Your task to perform on an android device: change alarm snooze length Image 0: 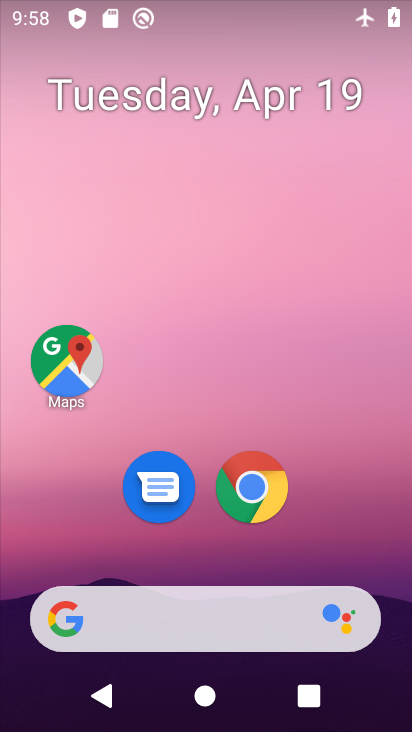
Step 0: drag from (323, 541) to (330, 0)
Your task to perform on an android device: change alarm snooze length Image 1: 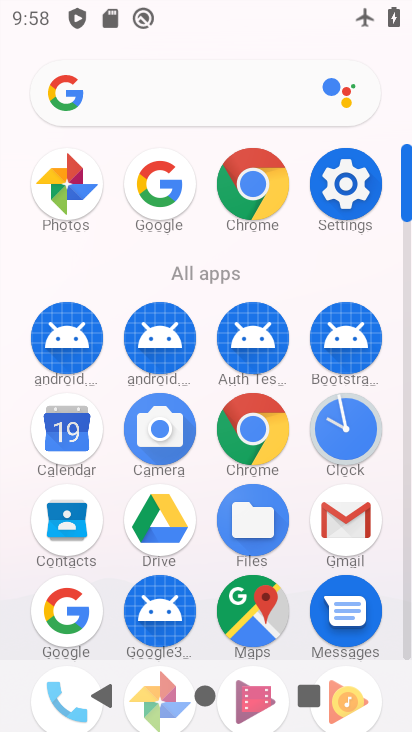
Step 1: click (341, 421)
Your task to perform on an android device: change alarm snooze length Image 2: 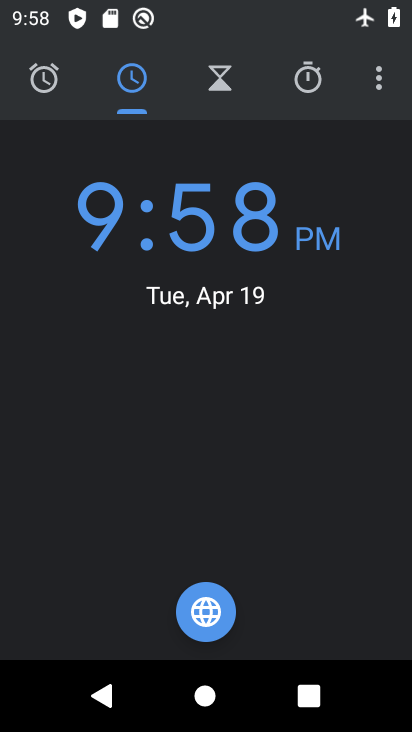
Step 2: click (383, 85)
Your task to perform on an android device: change alarm snooze length Image 3: 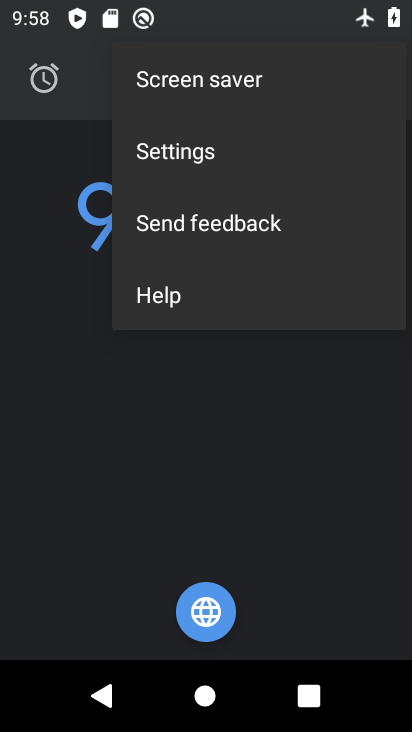
Step 3: click (174, 154)
Your task to perform on an android device: change alarm snooze length Image 4: 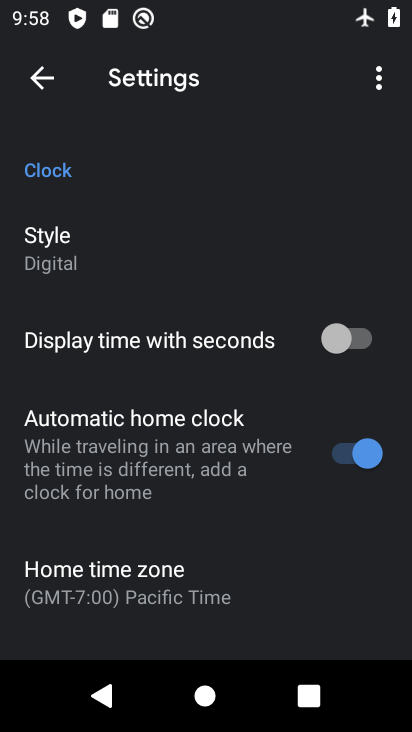
Step 4: drag from (150, 375) to (146, 303)
Your task to perform on an android device: change alarm snooze length Image 5: 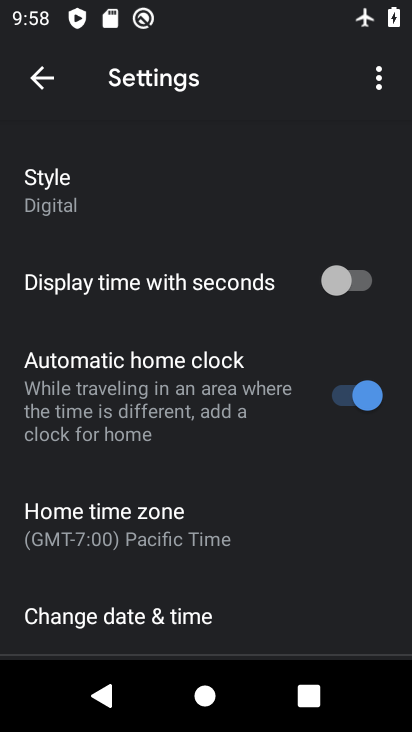
Step 5: drag from (99, 440) to (102, 358)
Your task to perform on an android device: change alarm snooze length Image 6: 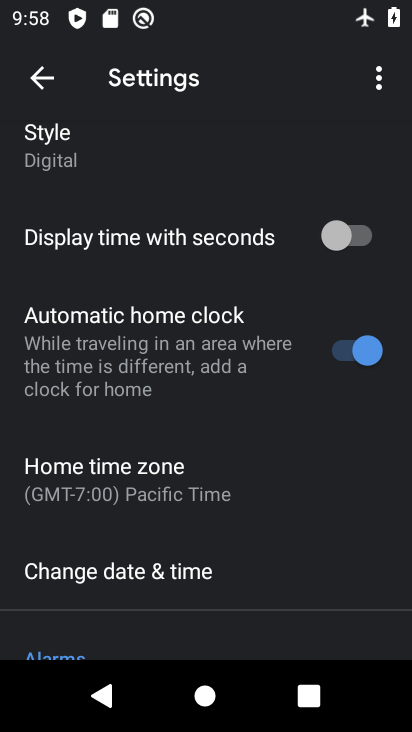
Step 6: drag from (96, 463) to (104, 367)
Your task to perform on an android device: change alarm snooze length Image 7: 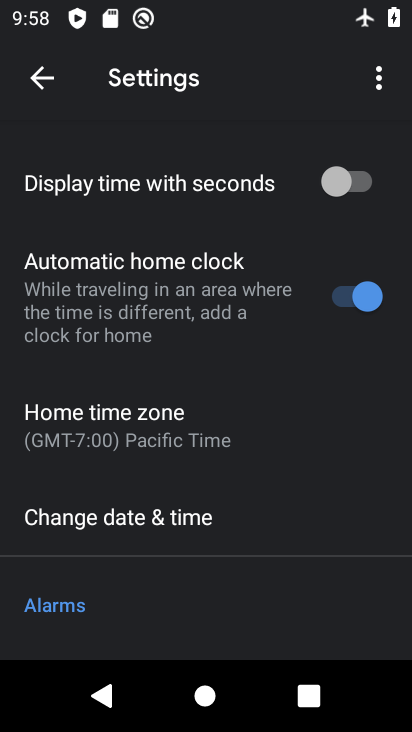
Step 7: drag from (57, 512) to (65, 440)
Your task to perform on an android device: change alarm snooze length Image 8: 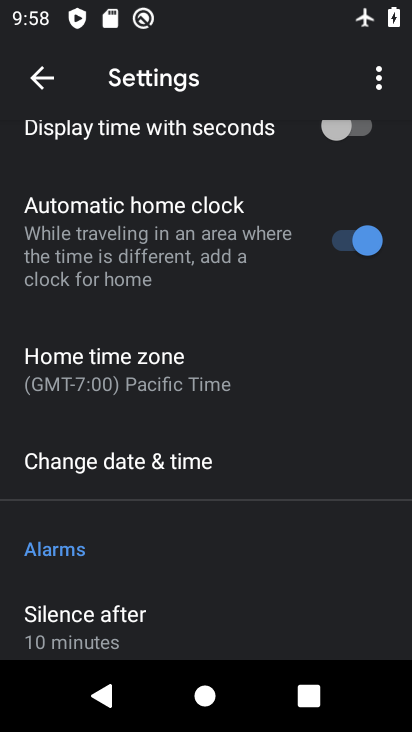
Step 8: drag from (60, 495) to (77, 413)
Your task to perform on an android device: change alarm snooze length Image 9: 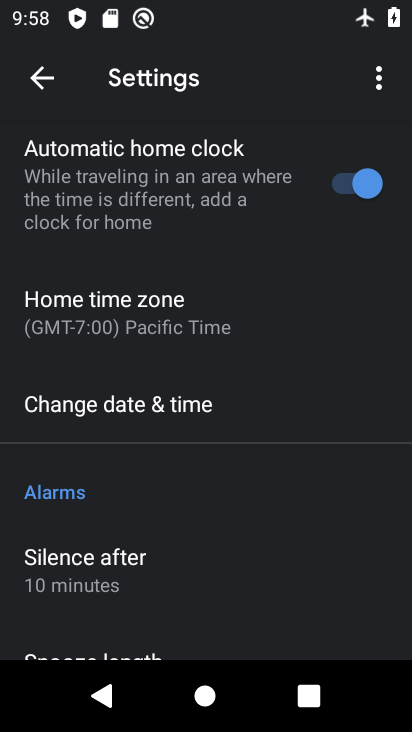
Step 9: drag from (77, 486) to (87, 431)
Your task to perform on an android device: change alarm snooze length Image 10: 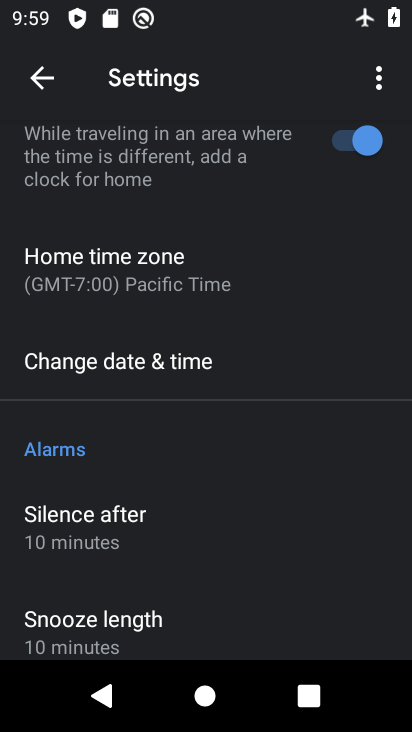
Step 10: click (91, 624)
Your task to perform on an android device: change alarm snooze length Image 11: 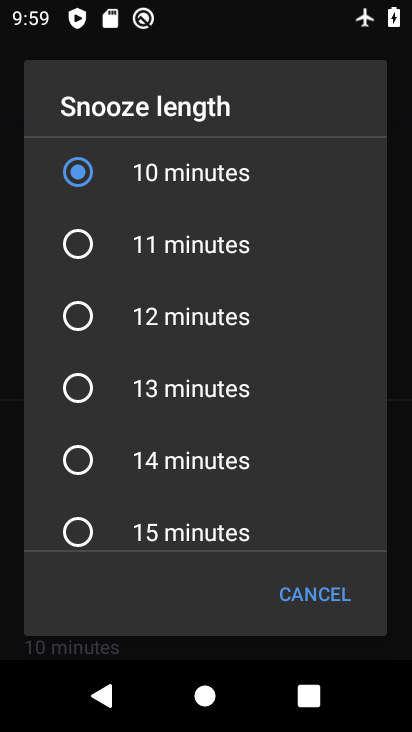
Step 11: click (176, 317)
Your task to perform on an android device: change alarm snooze length Image 12: 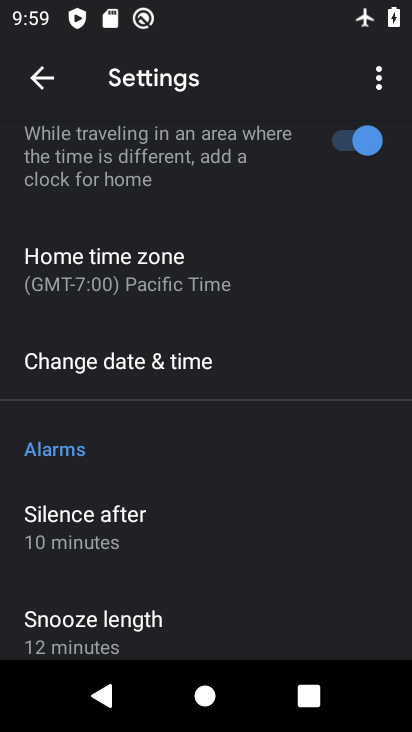
Step 12: task complete